Your task to perform on an android device: When is my next meeting? Image 0: 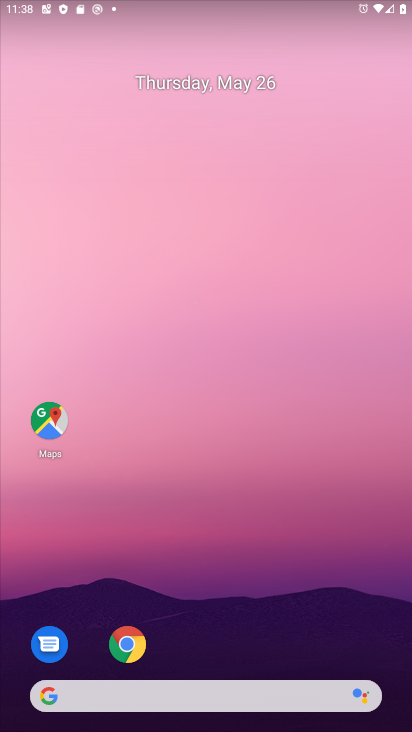
Step 0: drag from (255, 643) to (214, 235)
Your task to perform on an android device: When is my next meeting? Image 1: 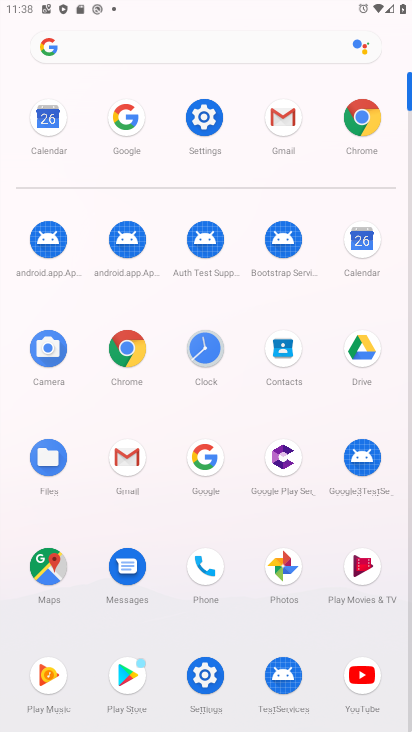
Step 1: click (349, 249)
Your task to perform on an android device: When is my next meeting? Image 2: 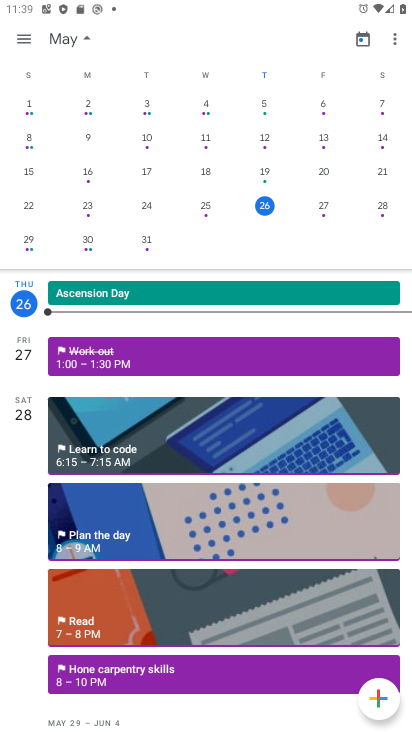
Step 2: task complete